Your task to perform on an android device: turn on location history Image 0: 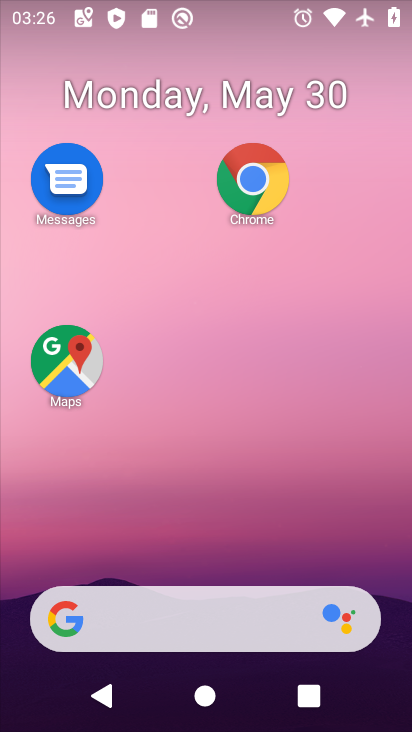
Step 0: drag from (196, 548) to (316, 1)
Your task to perform on an android device: turn on location history Image 1: 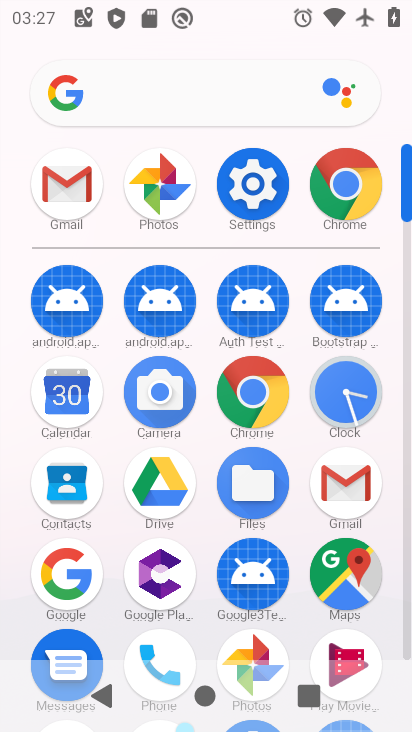
Step 1: click (240, 192)
Your task to perform on an android device: turn on location history Image 2: 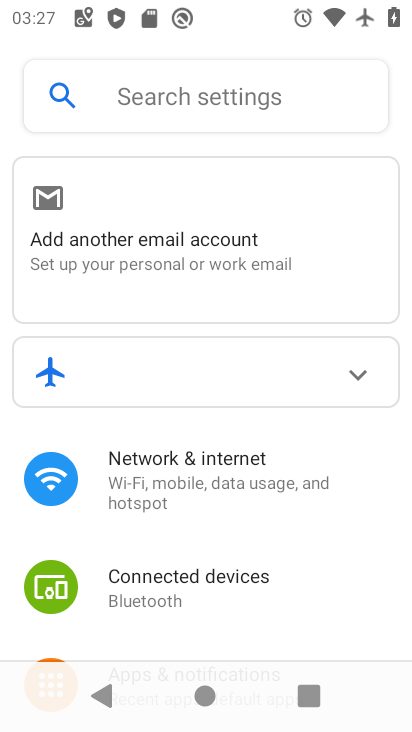
Step 2: drag from (253, 598) to (225, 259)
Your task to perform on an android device: turn on location history Image 3: 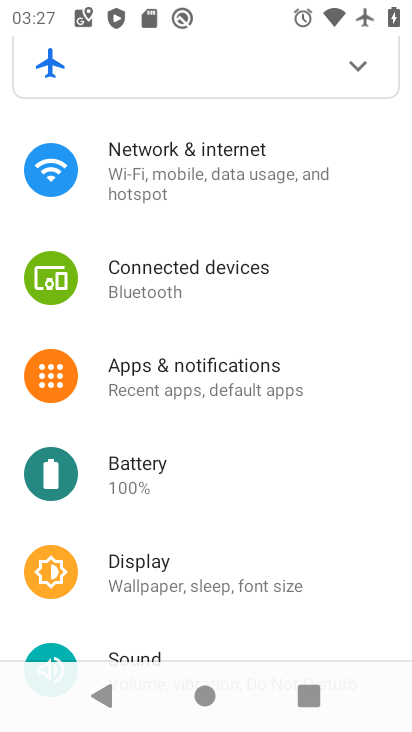
Step 3: drag from (205, 616) to (201, 302)
Your task to perform on an android device: turn on location history Image 4: 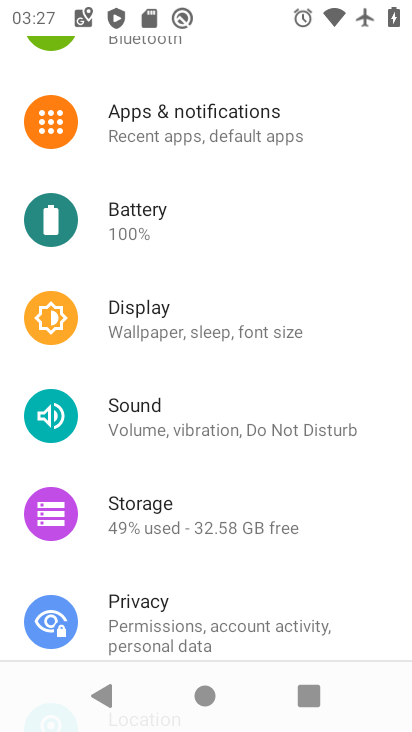
Step 4: drag from (207, 358) to (204, 596)
Your task to perform on an android device: turn on location history Image 5: 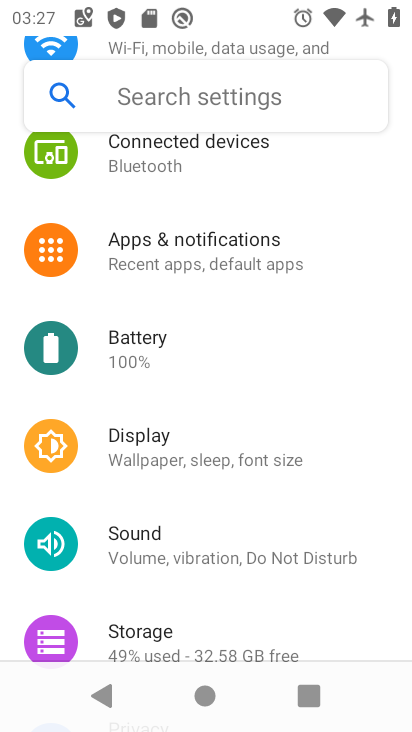
Step 5: drag from (205, 571) to (199, 255)
Your task to perform on an android device: turn on location history Image 6: 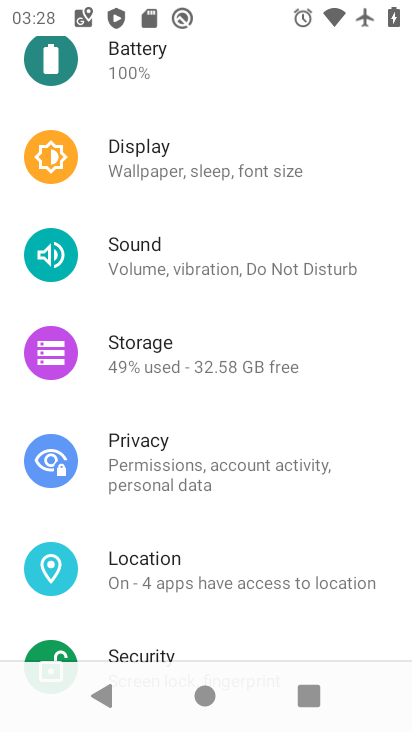
Step 6: drag from (245, 534) to (221, 221)
Your task to perform on an android device: turn on location history Image 7: 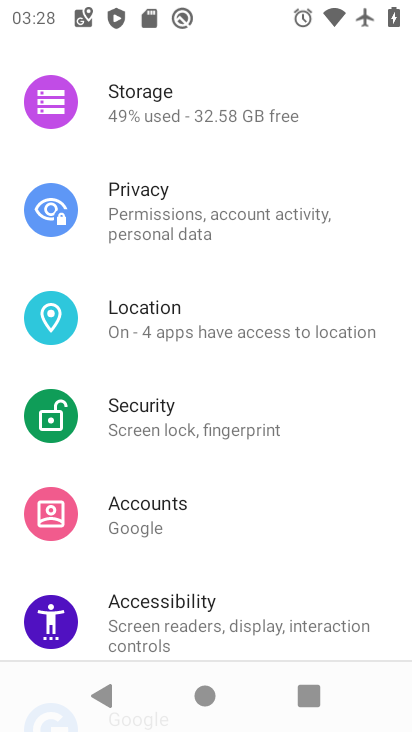
Step 7: drag from (225, 554) to (188, 195)
Your task to perform on an android device: turn on location history Image 8: 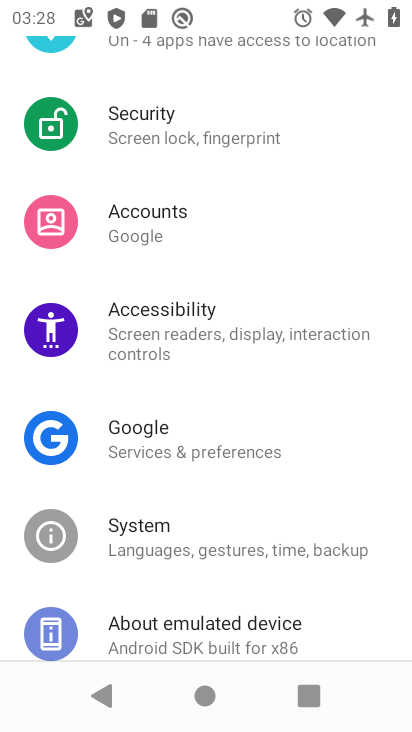
Step 8: drag from (177, 215) to (202, 512)
Your task to perform on an android device: turn on location history Image 9: 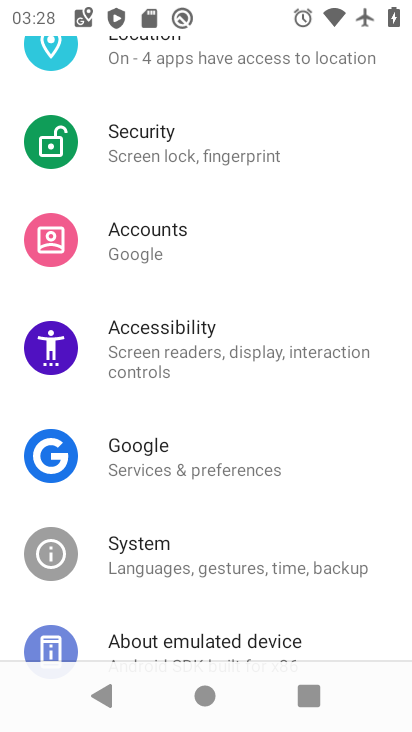
Step 9: drag from (200, 245) to (227, 498)
Your task to perform on an android device: turn on location history Image 10: 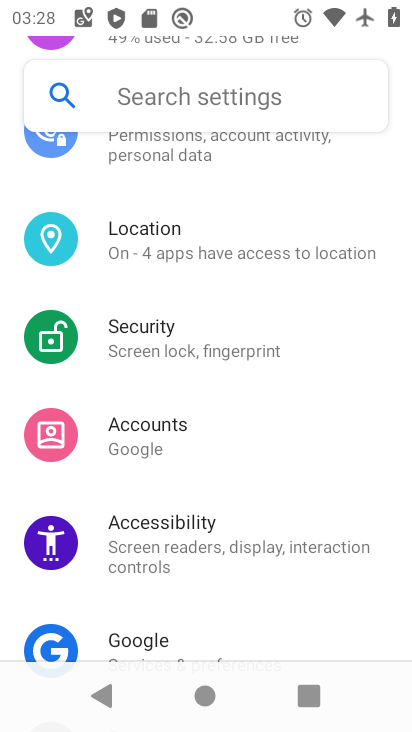
Step 10: click (175, 249)
Your task to perform on an android device: turn on location history Image 11: 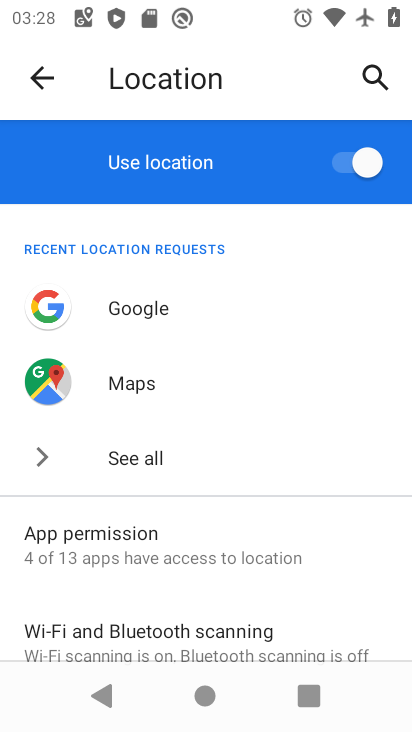
Step 11: task complete